Your task to perform on an android device: turn on bluetooth scan Image 0: 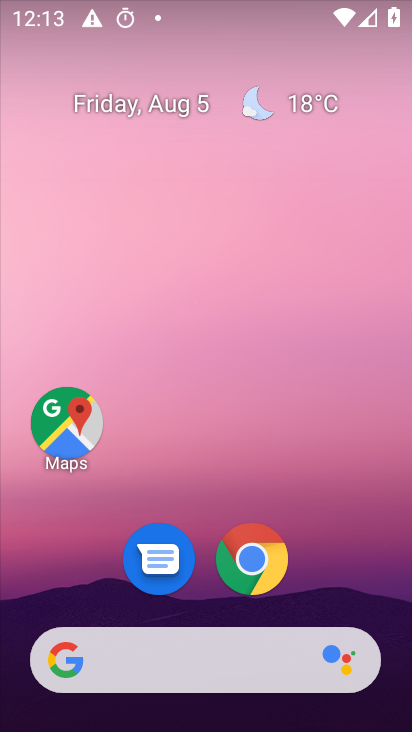
Step 0: drag from (48, 714) to (277, 124)
Your task to perform on an android device: turn on bluetooth scan Image 1: 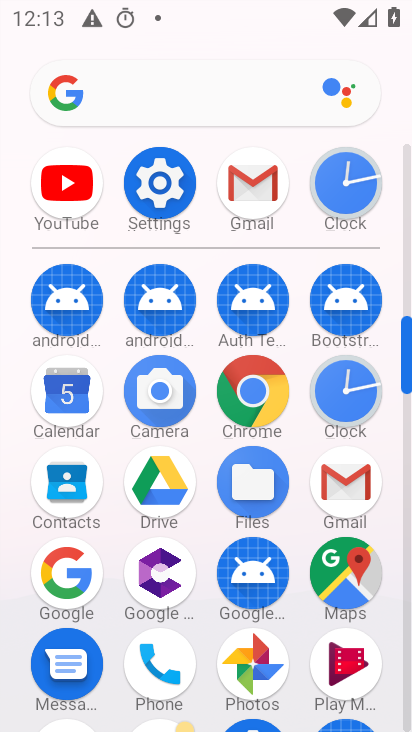
Step 1: click (163, 192)
Your task to perform on an android device: turn on bluetooth scan Image 2: 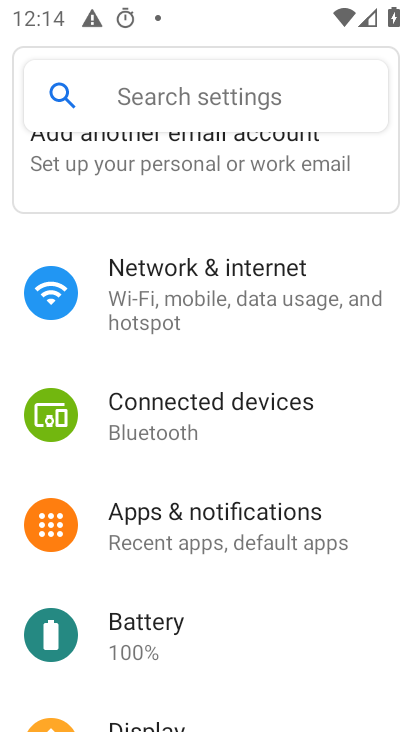
Step 2: click (193, 401)
Your task to perform on an android device: turn on bluetooth scan Image 3: 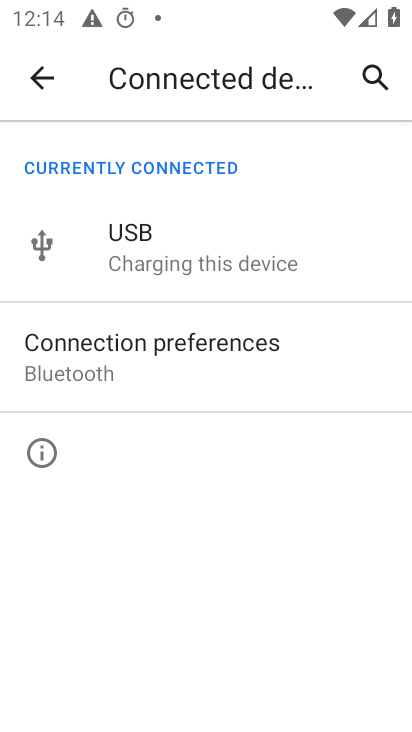
Step 3: click (180, 327)
Your task to perform on an android device: turn on bluetooth scan Image 4: 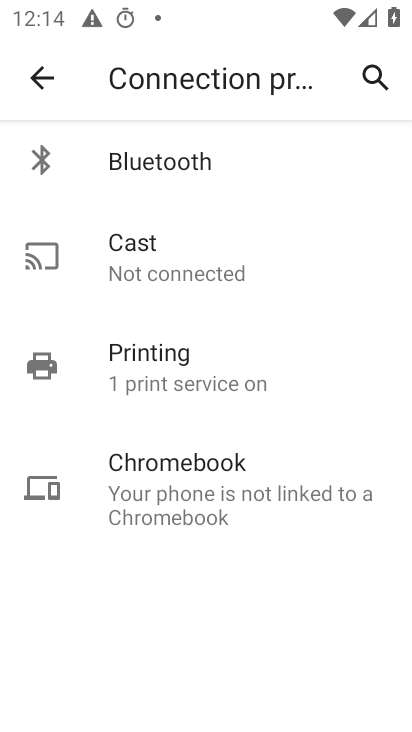
Step 4: click (125, 164)
Your task to perform on an android device: turn on bluetooth scan Image 5: 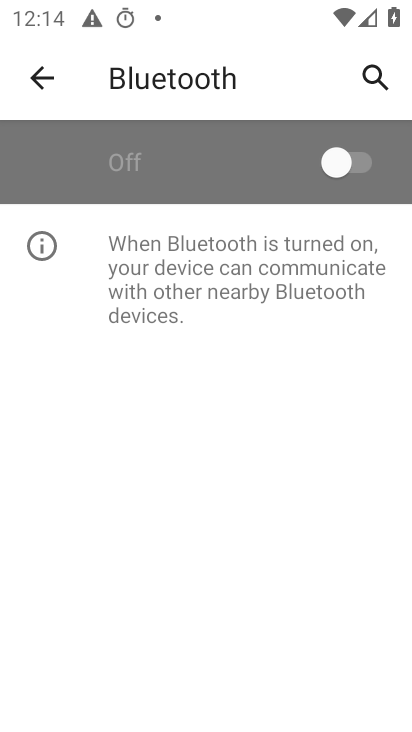
Step 5: task complete